Your task to perform on an android device: change notification settings in the gmail app Image 0: 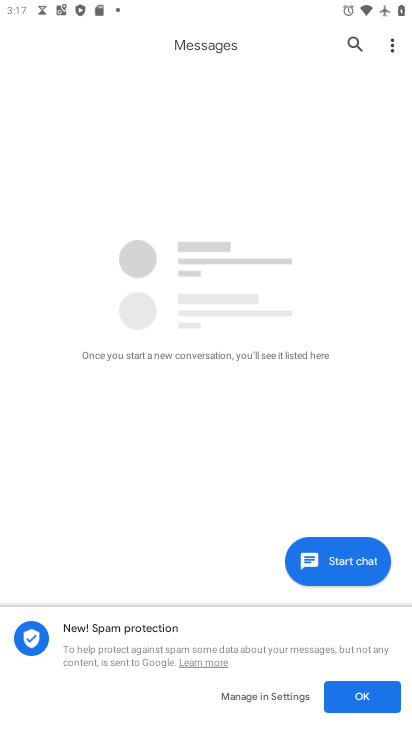
Step 0: press home button
Your task to perform on an android device: change notification settings in the gmail app Image 1: 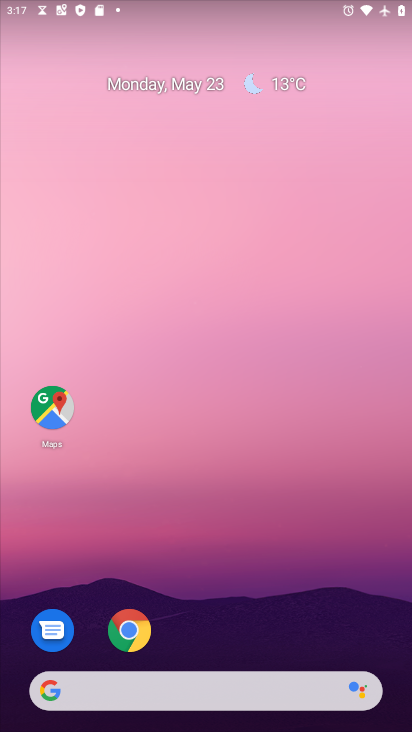
Step 1: drag from (297, 601) to (174, 80)
Your task to perform on an android device: change notification settings in the gmail app Image 2: 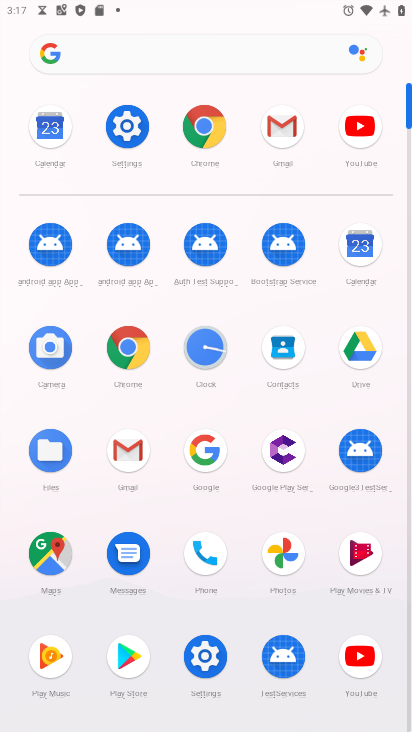
Step 2: click (293, 148)
Your task to perform on an android device: change notification settings in the gmail app Image 3: 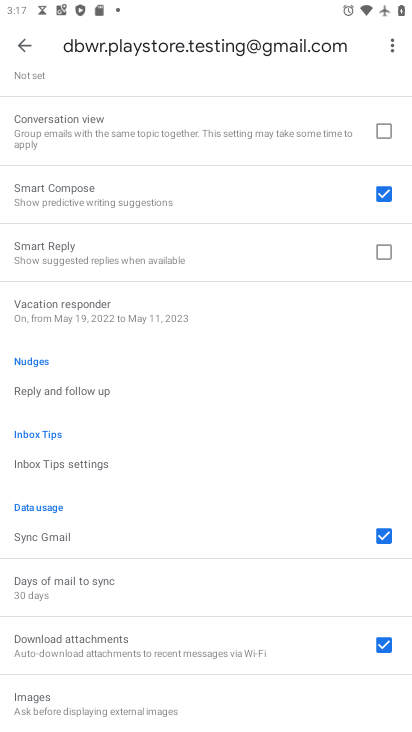
Step 3: drag from (213, 182) to (148, 730)
Your task to perform on an android device: change notification settings in the gmail app Image 4: 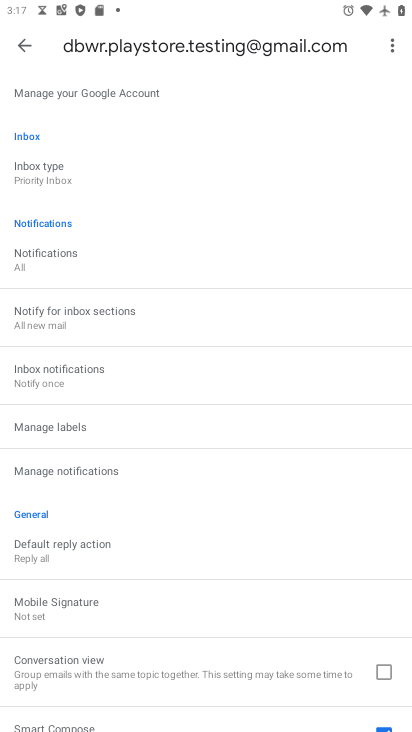
Step 4: click (70, 263)
Your task to perform on an android device: change notification settings in the gmail app Image 5: 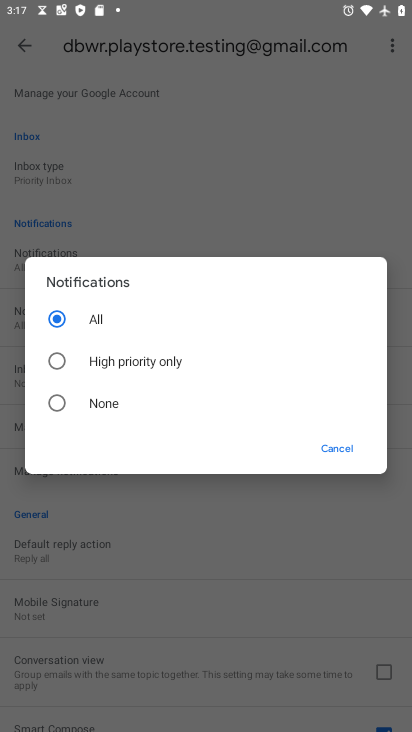
Step 5: click (113, 409)
Your task to perform on an android device: change notification settings in the gmail app Image 6: 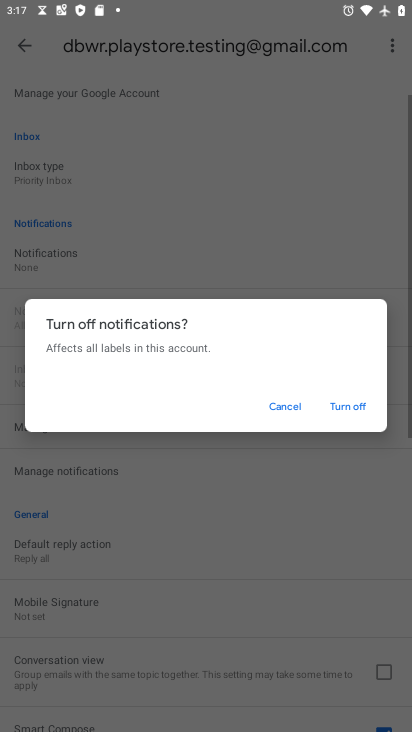
Step 6: task complete